Your task to perform on an android device: toggle airplane mode Image 0: 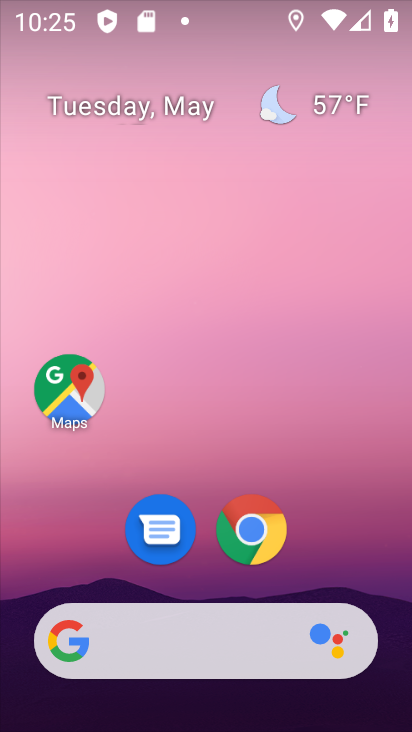
Step 0: drag from (191, 10) to (273, 600)
Your task to perform on an android device: toggle airplane mode Image 1: 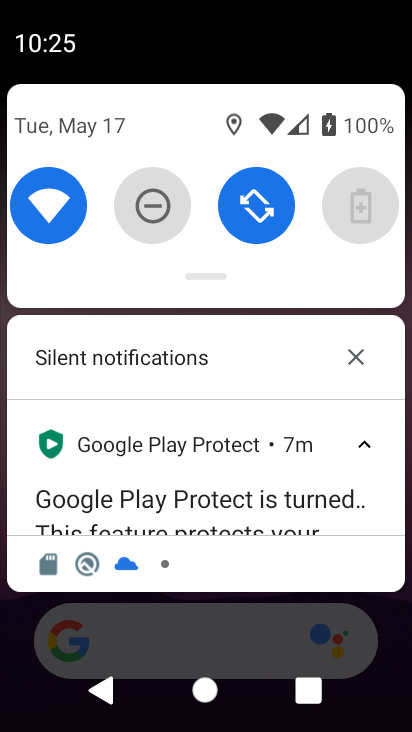
Step 1: drag from (204, 158) to (290, 638)
Your task to perform on an android device: toggle airplane mode Image 2: 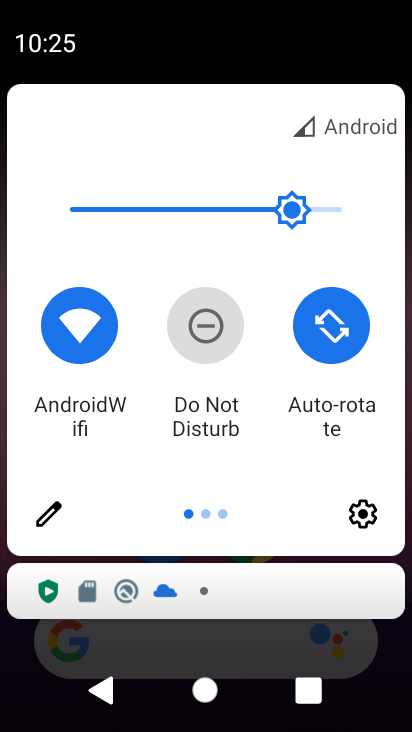
Step 2: drag from (374, 455) to (42, 475)
Your task to perform on an android device: toggle airplane mode Image 3: 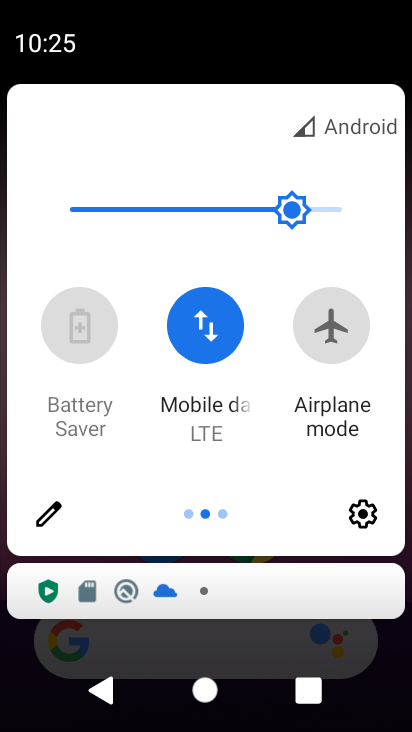
Step 3: click (349, 310)
Your task to perform on an android device: toggle airplane mode Image 4: 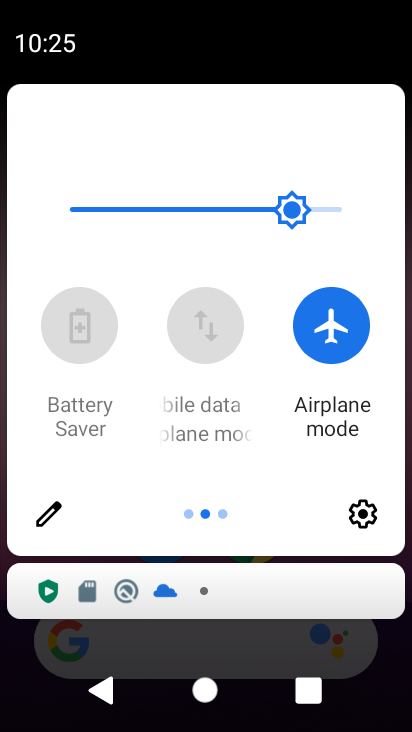
Step 4: click (349, 310)
Your task to perform on an android device: toggle airplane mode Image 5: 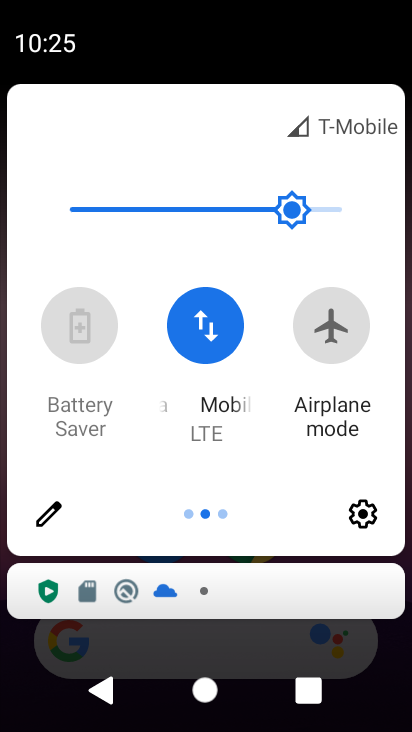
Step 5: task complete